Your task to perform on an android device: toggle translation in the chrome app Image 0: 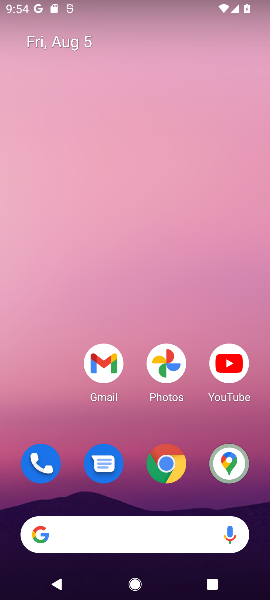
Step 0: click (112, 120)
Your task to perform on an android device: toggle translation in the chrome app Image 1: 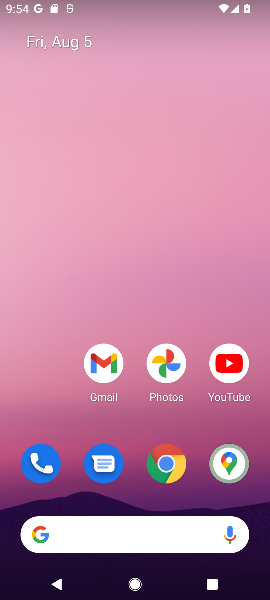
Step 1: drag from (120, 417) to (107, 148)
Your task to perform on an android device: toggle translation in the chrome app Image 2: 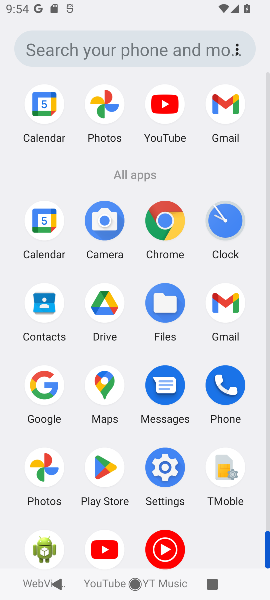
Step 2: click (157, 227)
Your task to perform on an android device: toggle translation in the chrome app Image 3: 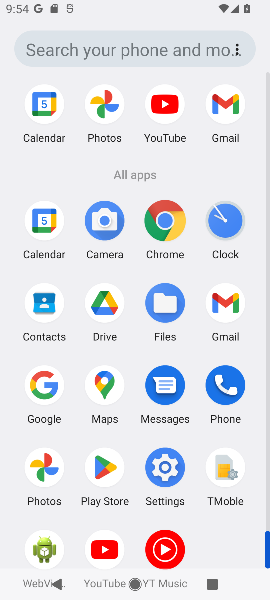
Step 3: click (158, 227)
Your task to perform on an android device: toggle translation in the chrome app Image 4: 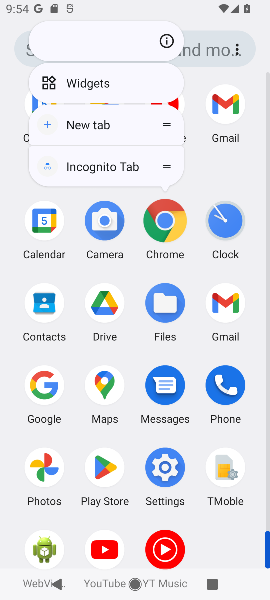
Step 4: click (156, 230)
Your task to perform on an android device: toggle translation in the chrome app Image 5: 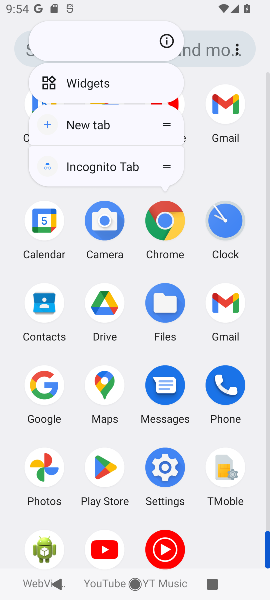
Step 5: click (156, 230)
Your task to perform on an android device: toggle translation in the chrome app Image 6: 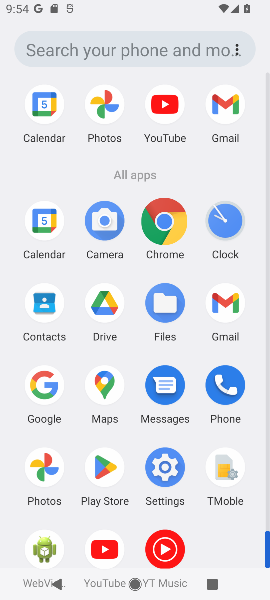
Step 6: click (155, 232)
Your task to perform on an android device: toggle translation in the chrome app Image 7: 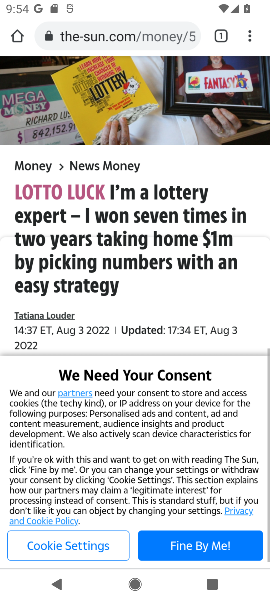
Step 7: click (156, 231)
Your task to perform on an android device: toggle translation in the chrome app Image 8: 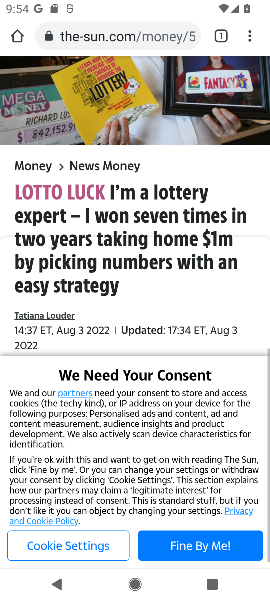
Step 8: click (250, 35)
Your task to perform on an android device: toggle translation in the chrome app Image 9: 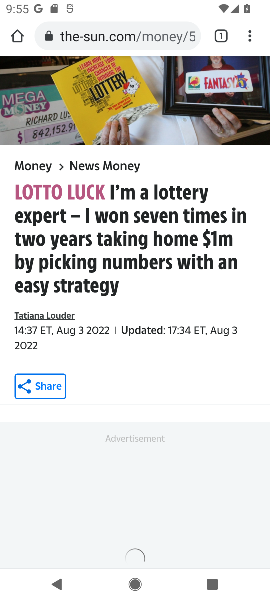
Step 9: click (250, 35)
Your task to perform on an android device: toggle translation in the chrome app Image 10: 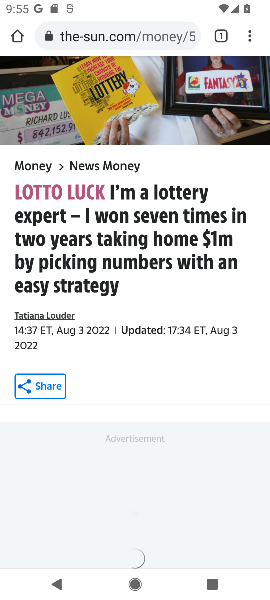
Step 10: drag from (250, 35) to (184, 422)
Your task to perform on an android device: toggle translation in the chrome app Image 11: 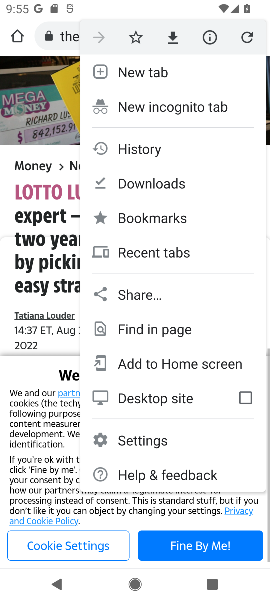
Step 11: click (136, 445)
Your task to perform on an android device: toggle translation in the chrome app Image 12: 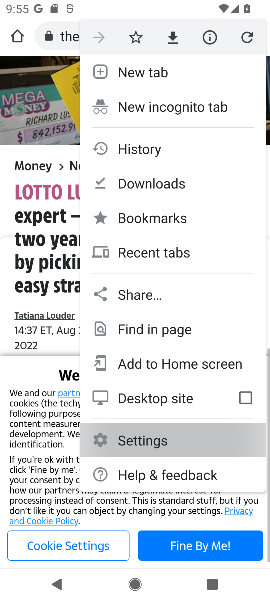
Step 12: click (136, 445)
Your task to perform on an android device: toggle translation in the chrome app Image 13: 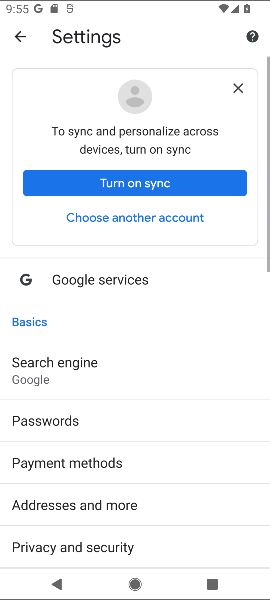
Step 13: click (136, 448)
Your task to perform on an android device: toggle translation in the chrome app Image 14: 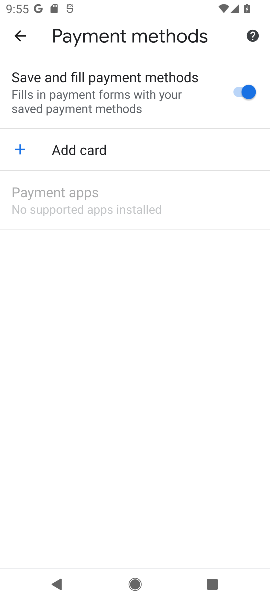
Step 14: click (105, 186)
Your task to perform on an android device: toggle translation in the chrome app Image 15: 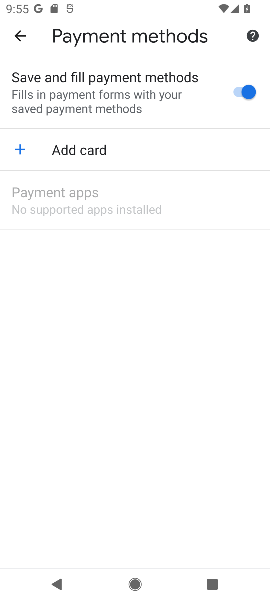
Step 15: click (64, 52)
Your task to perform on an android device: toggle translation in the chrome app Image 16: 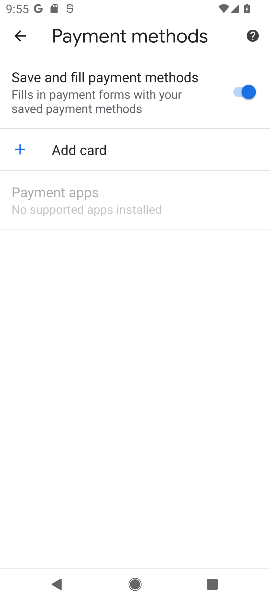
Step 16: click (22, 37)
Your task to perform on an android device: toggle translation in the chrome app Image 17: 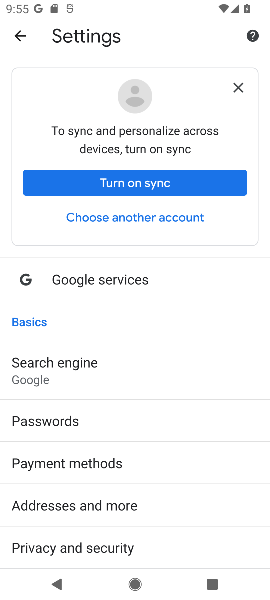
Step 17: click (54, 252)
Your task to perform on an android device: toggle translation in the chrome app Image 18: 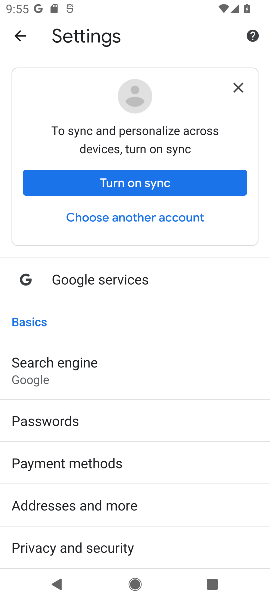
Step 18: drag from (72, 447) to (75, 308)
Your task to perform on an android device: toggle translation in the chrome app Image 19: 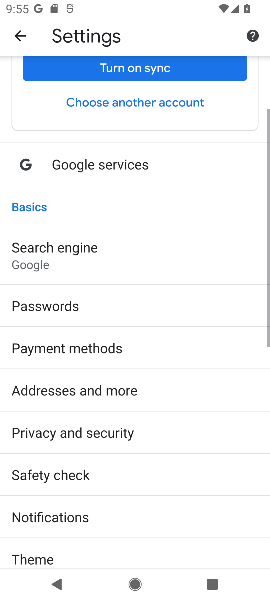
Step 19: click (73, 346)
Your task to perform on an android device: toggle translation in the chrome app Image 20: 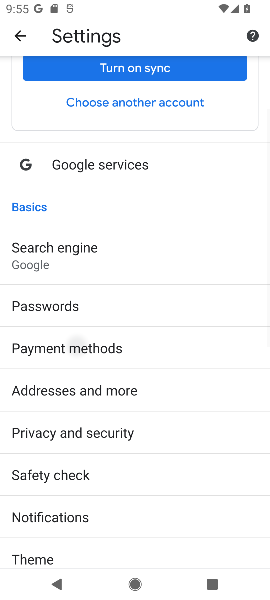
Step 20: drag from (103, 427) to (90, 292)
Your task to perform on an android device: toggle translation in the chrome app Image 21: 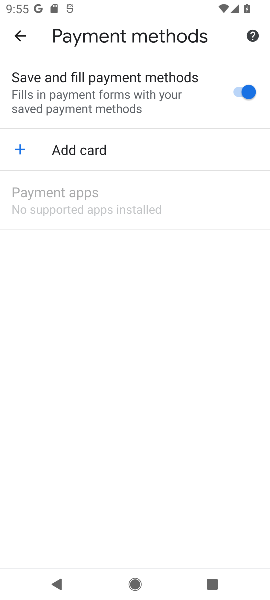
Step 21: drag from (39, 362) to (22, 254)
Your task to perform on an android device: toggle translation in the chrome app Image 22: 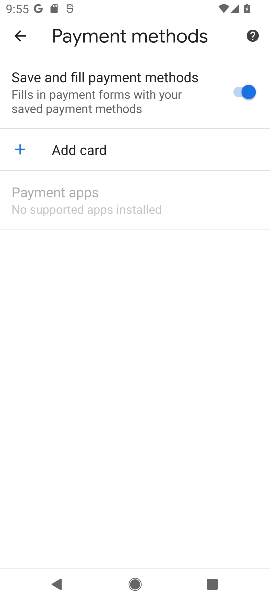
Step 22: drag from (102, 468) to (98, 238)
Your task to perform on an android device: toggle translation in the chrome app Image 23: 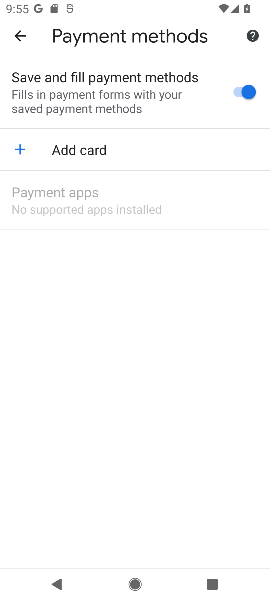
Step 23: click (20, 36)
Your task to perform on an android device: toggle translation in the chrome app Image 24: 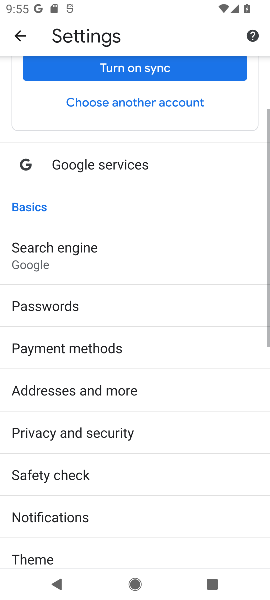
Step 24: drag from (136, 513) to (128, 216)
Your task to perform on an android device: toggle translation in the chrome app Image 25: 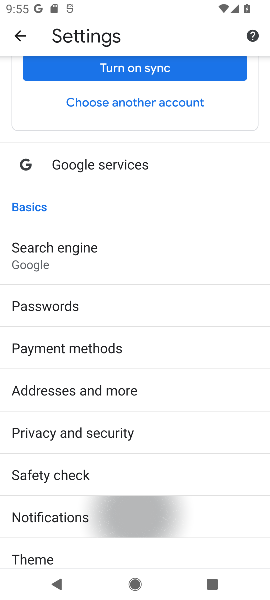
Step 25: drag from (121, 428) to (97, 203)
Your task to perform on an android device: toggle translation in the chrome app Image 26: 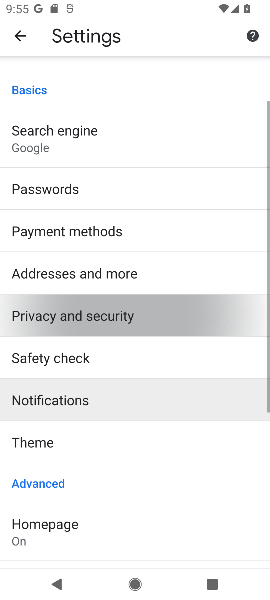
Step 26: drag from (100, 407) to (80, 262)
Your task to perform on an android device: toggle translation in the chrome app Image 27: 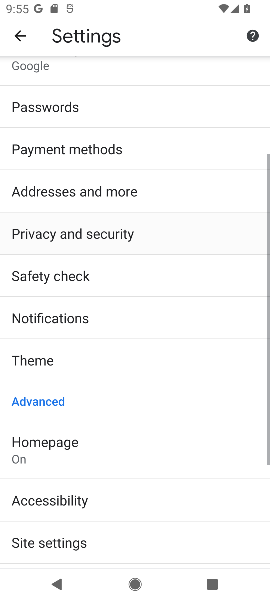
Step 27: drag from (131, 361) to (140, 168)
Your task to perform on an android device: toggle translation in the chrome app Image 28: 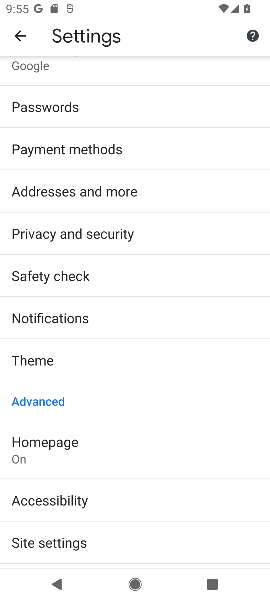
Step 28: click (44, 543)
Your task to perform on an android device: toggle translation in the chrome app Image 29: 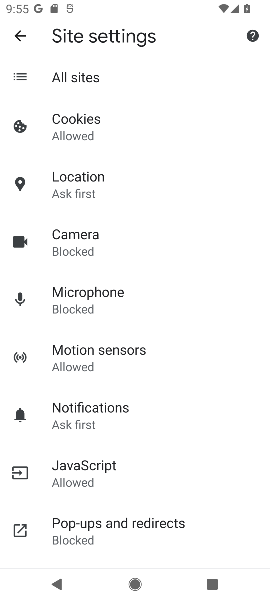
Step 29: click (21, 37)
Your task to perform on an android device: toggle translation in the chrome app Image 30: 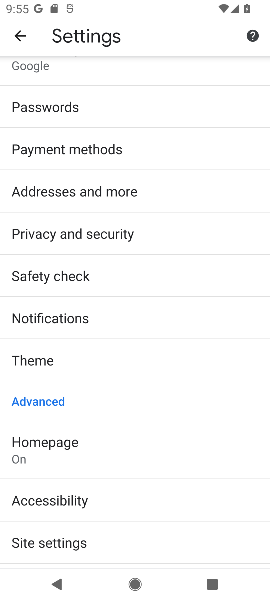
Step 30: drag from (62, 468) to (25, 172)
Your task to perform on an android device: toggle translation in the chrome app Image 31: 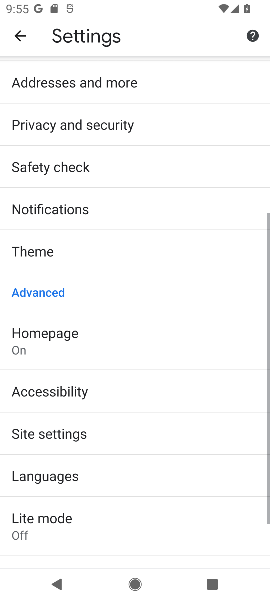
Step 31: drag from (87, 341) to (87, 255)
Your task to perform on an android device: toggle translation in the chrome app Image 32: 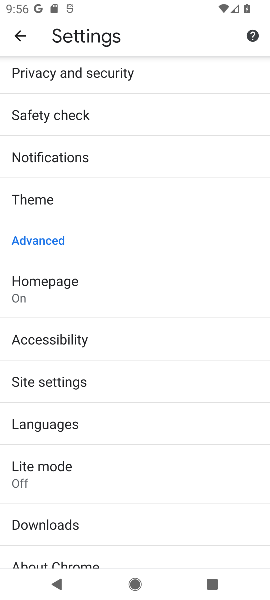
Step 32: click (14, 32)
Your task to perform on an android device: toggle translation in the chrome app Image 33: 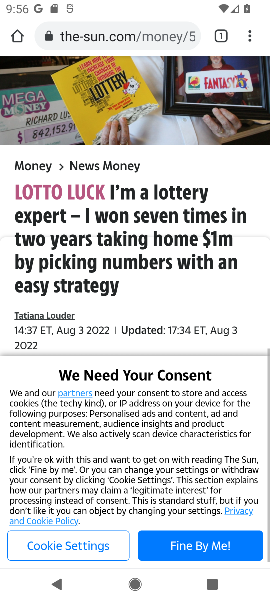
Step 33: click (253, 34)
Your task to perform on an android device: toggle translation in the chrome app Image 34: 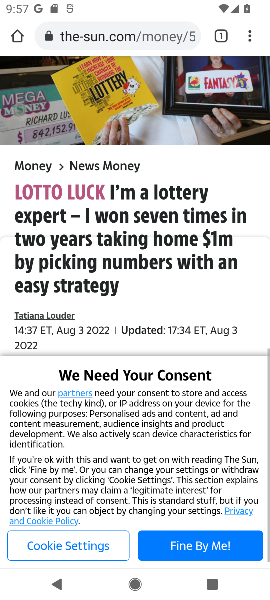
Step 34: click (249, 36)
Your task to perform on an android device: toggle translation in the chrome app Image 35: 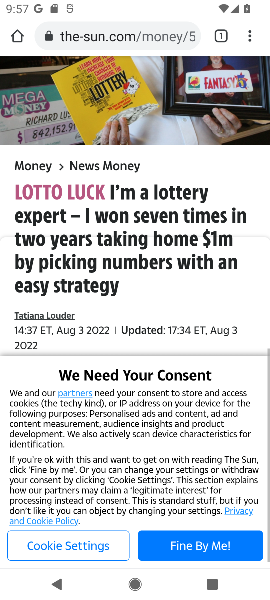
Step 35: drag from (251, 28) to (194, 425)
Your task to perform on an android device: toggle translation in the chrome app Image 36: 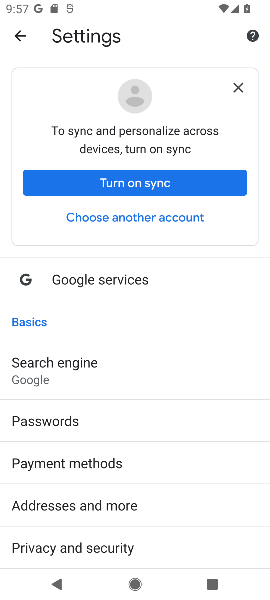
Step 36: drag from (79, 522) to (38, 332)
Your task to perform on an android device: toggle translation in the chrome app Image 37: 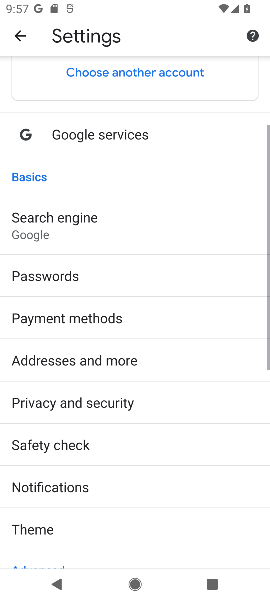
Step 37: drag from (56, 414) to (28, 146)
Your task to perform on an android device: toggle translation in the chrome app Image 38: 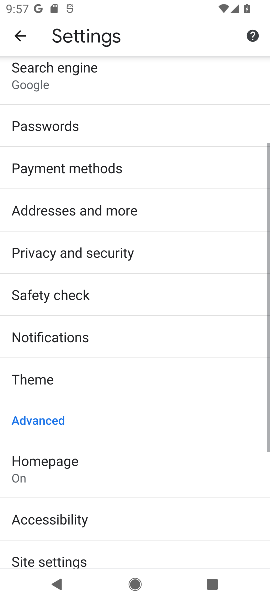
Step 38: click (42, 107)
Your task to perform on an android device: toggle translation in the chrome app Image 39: 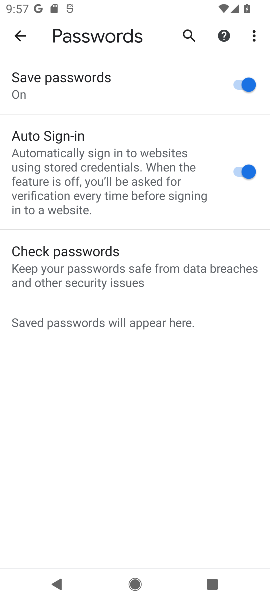
Step 39: click (17, 34)
Your task to perform on an android device: toggle translation in the chrome app Image 40: 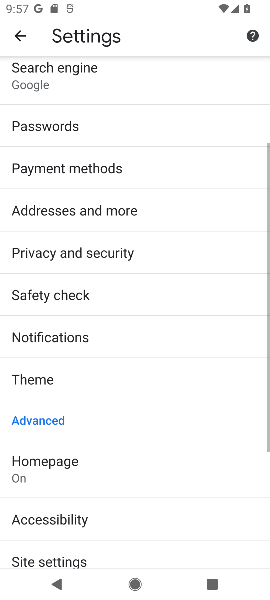
Step 40: drag from (97, 500) to (86, 91)
Your task to perform on an android device: toggle translation in the chrome app Image 41: 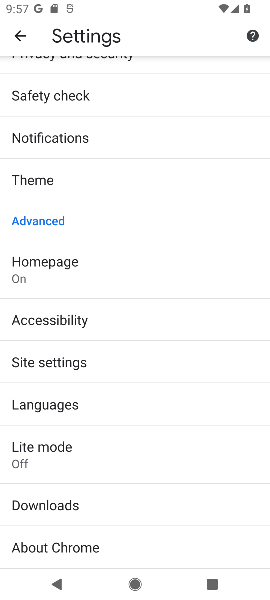
Step 41: click (43, 406)
Your task to perform on an android device: toggle translation in the chrome app Image 42: 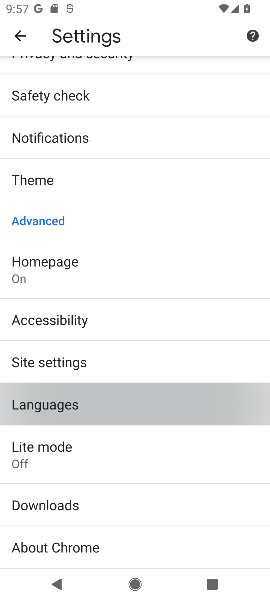
Step 42: click (44, 405)
Your task to perform on an android device: toggle translation in the chrome app Image 43: 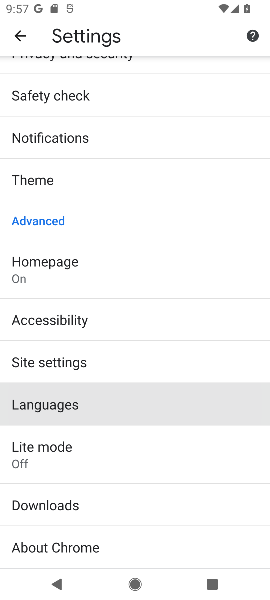
Step 43: click (43, 406)
Your task to perform on an android device: toggle translation in the chrome app Image 44: 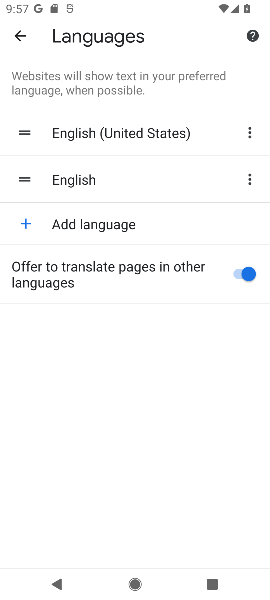
Step 44: click (241, 271)
Your task to perform on an android device: toggle translation in the chrome app Image 45: 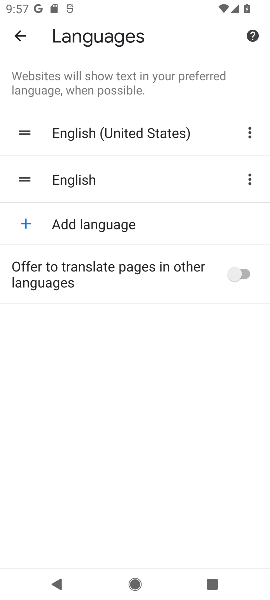
Step 45: task complete